Your task to perform on an android device: add a contact Image 0: 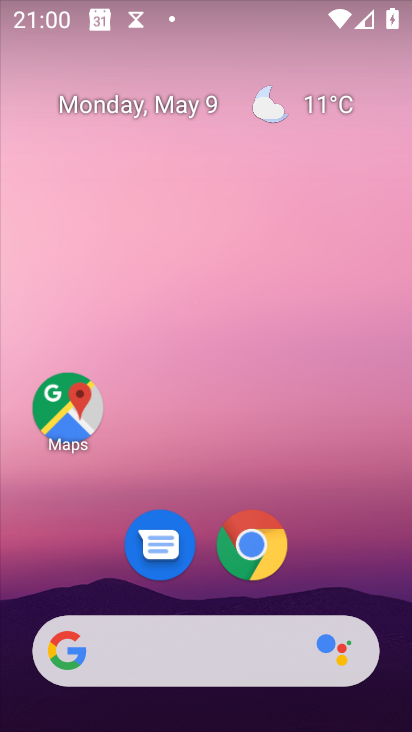
Step 0: drag from (201, 728) to (205, 161)
Your task to perform on an android device: add a contact Image 1: 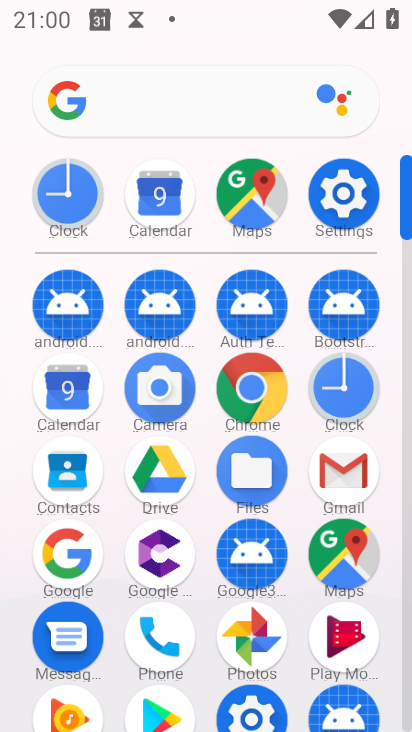
Step 1: click (58, 470)
Your task to perform on an android device: add a contact Image 2: 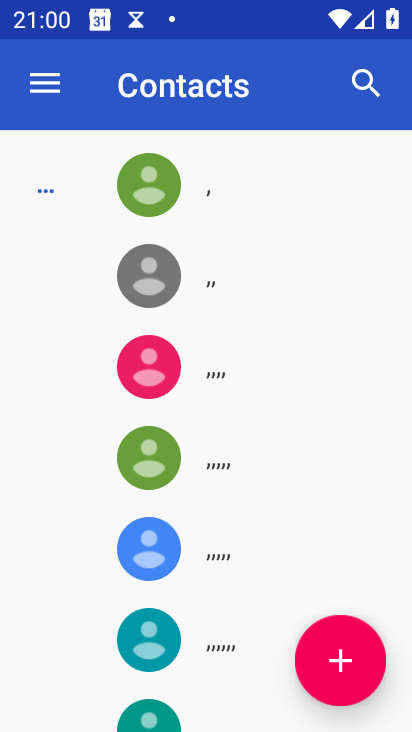
Step 2: click (337, 652)
Your task to perform on an android device: add a contact Image 3: 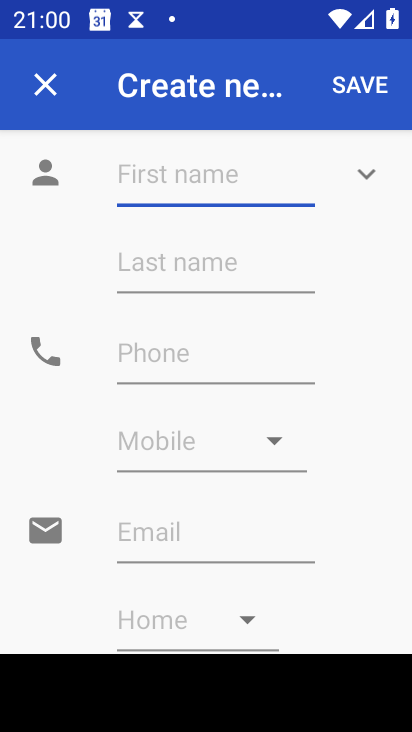
Step 3: type "chin chan"
Your task to perform on an android device: add a contact Image 4: 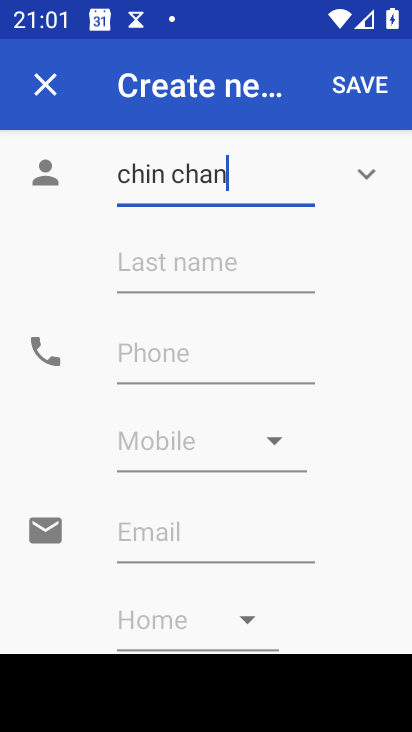
Step 4: click (172, 353)
Your task to perform on an android device: add a contact Image 5: 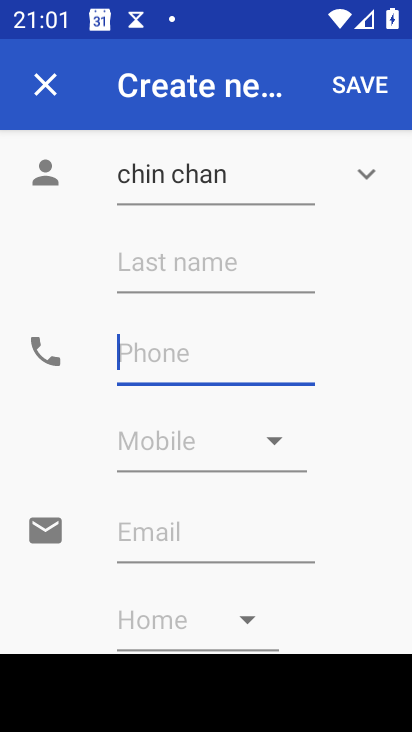
Step 5: type "98908765"
Your task to perform on an android device: add a contact Image 6: 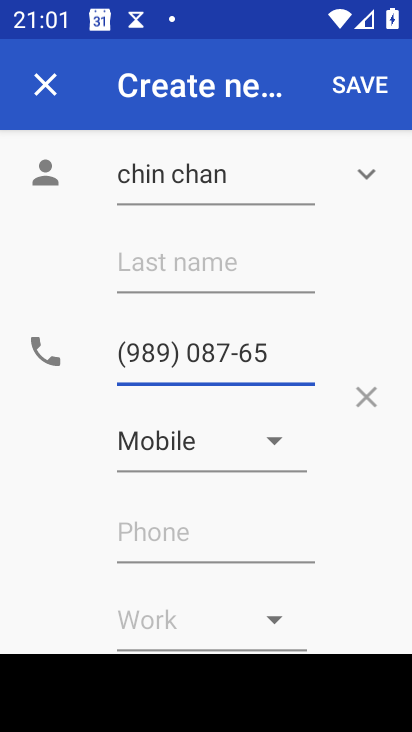
Step 6: click (350, 78)
Your task to perform on an android device: add a contact Image 7: 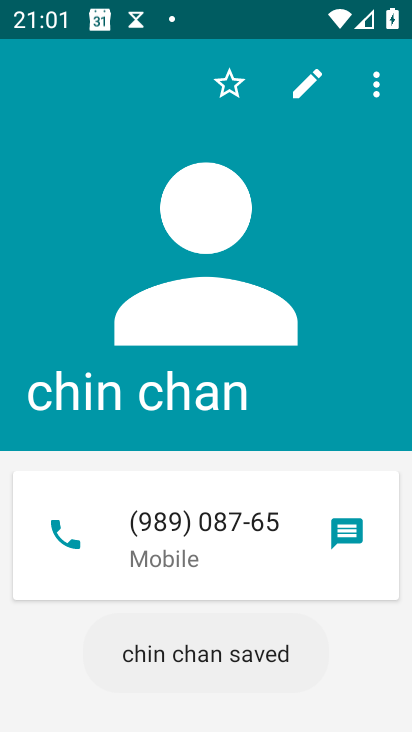
Step 7: task complete